Your task to perform on an android device: Open the Play Movies app and select the watchlist tab. Image 0: 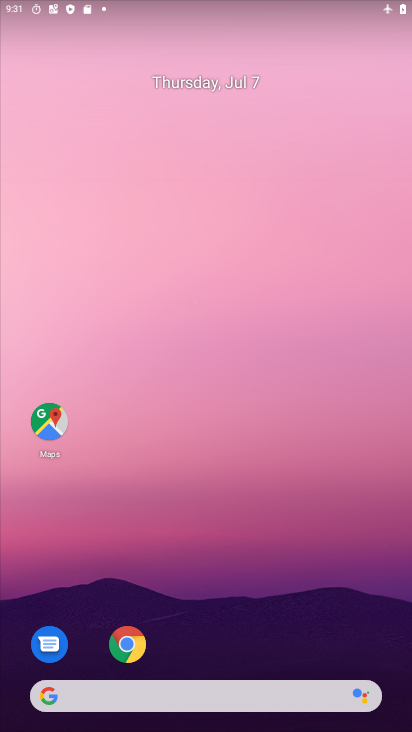
Step 0: drag from (302, 569) to (321, 114)
Your task to perform on an android device: Open the Play Movies app and select the watchlist tab. Image 1: 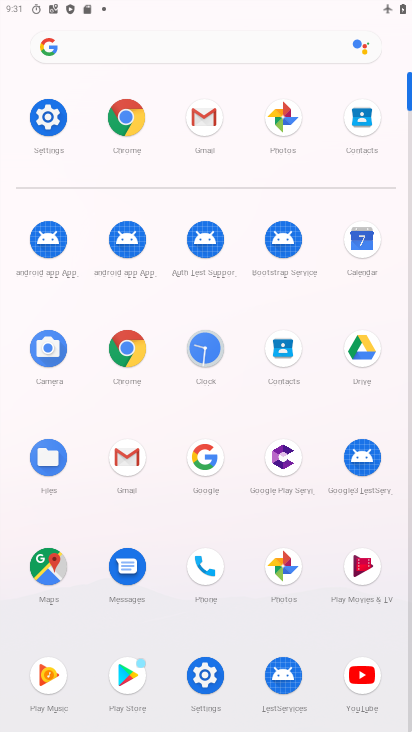
Step 1: click (368, 561)
Your task to perform on an android device: Open the Play Movies app and select the watchlist tab. Image 2: 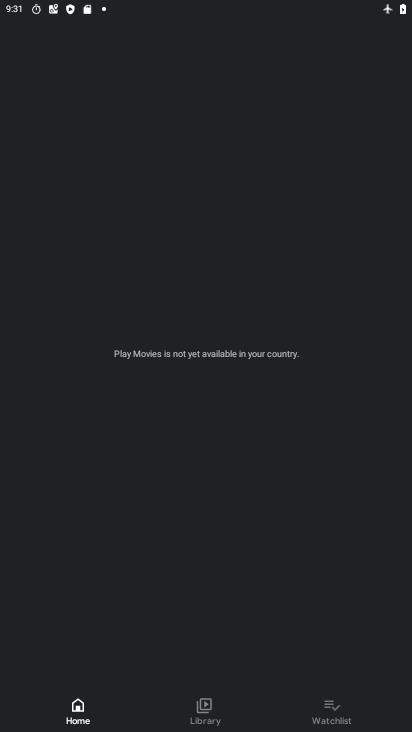
Step 2: click (337, 709)
Your task to perform on an android device: Open the Play Movies app and select the watchlist tab. Image 3: 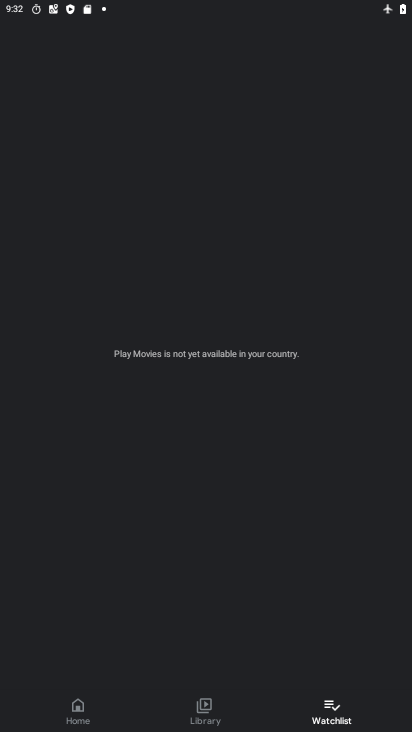
Step 3: task complete